Your task to perform on an android device: open a new tab in the chrome app Image 0: 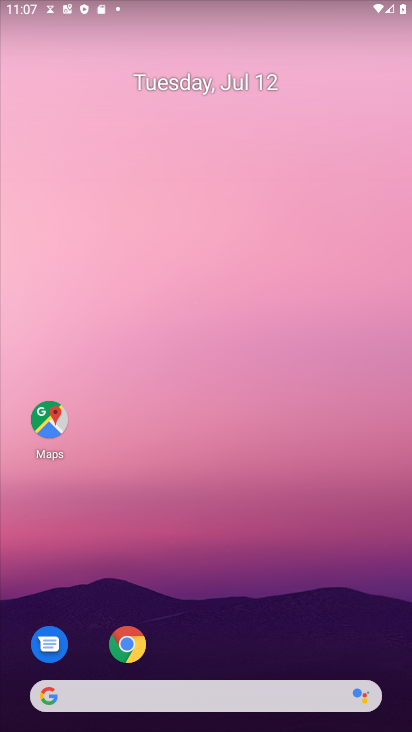
Step 0: press home button
Your task to perform on an android device: open a new tab in the chrome app Image 1: 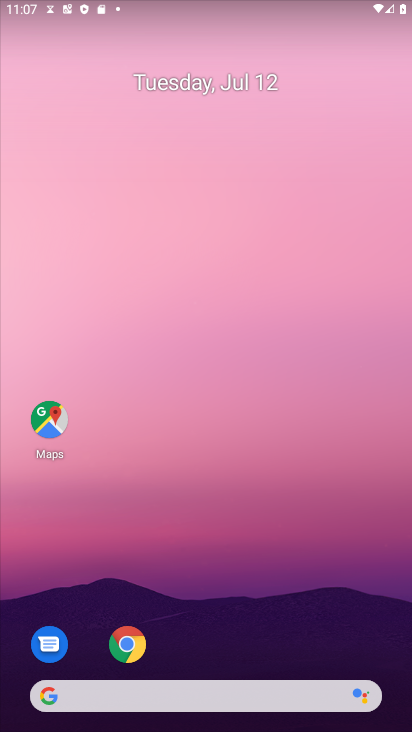
Step 1: click (123, 640)
Your task to perform on an android device: open a new tab in the chrome app Image 2: 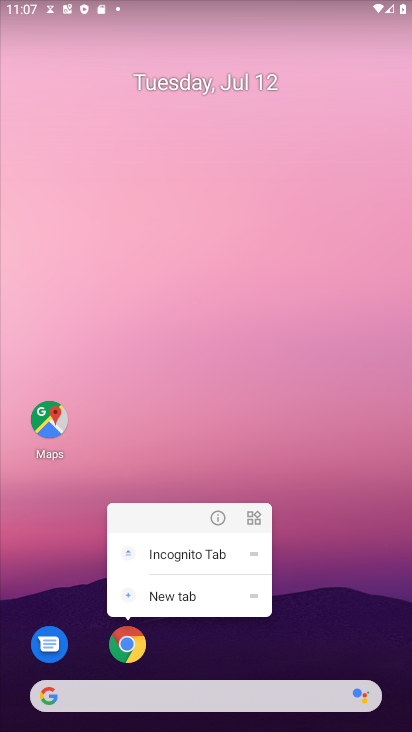
Step 2: click (120, 642)
Your task to perform on an android device: open a new tab in the chrome app Image 3: 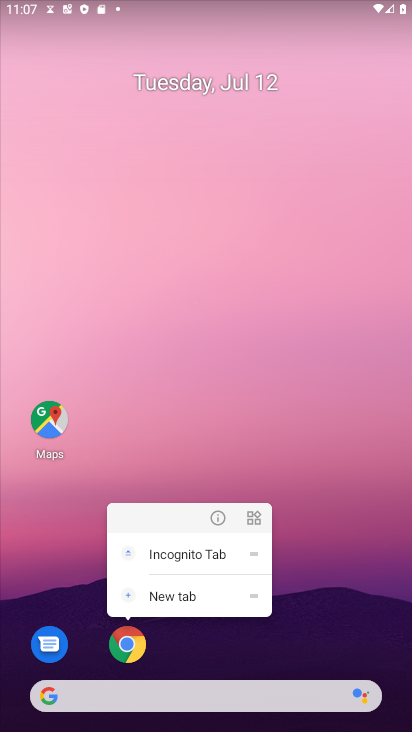
Step 3: click (125, 641)
Your task to perform on an android device: open a new tab in the chrome app Image 4: 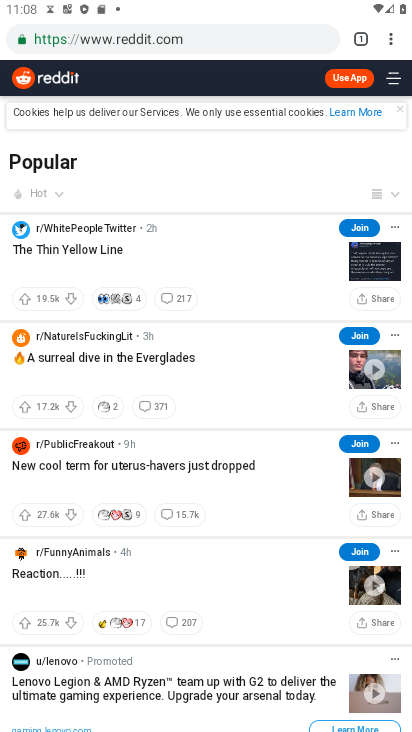
Step 4: click (360, 33)
Your task to perform on an android device: open a new tab in the chrome app Image 5: 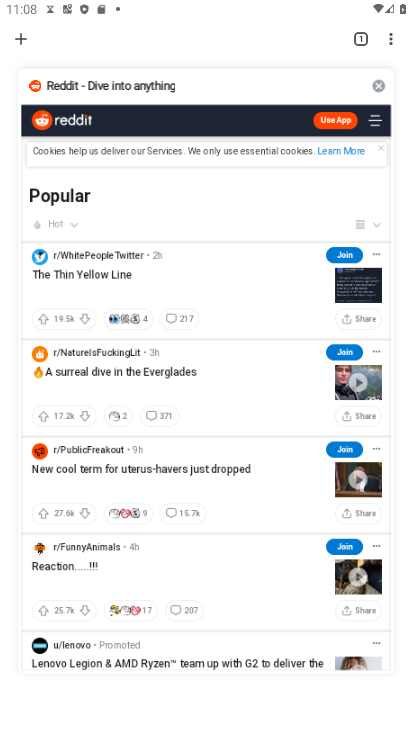
Step 5: click (21, 41)
Your task to perform on an android device: open a new tab in the chrome app Image 6: 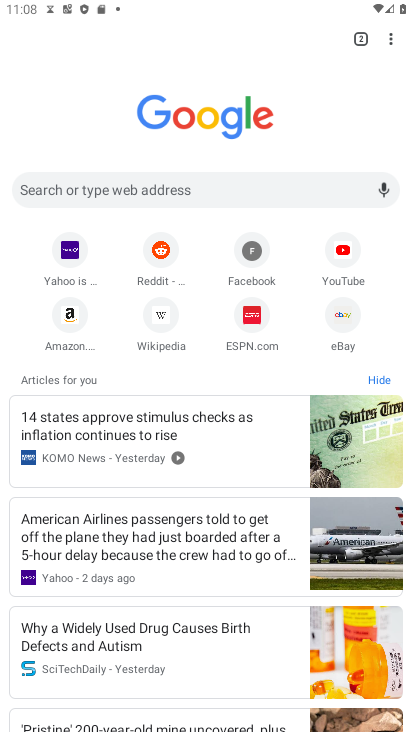
Step 6: task complete